Your task to perform on an android device: change notifications settings Image 0: 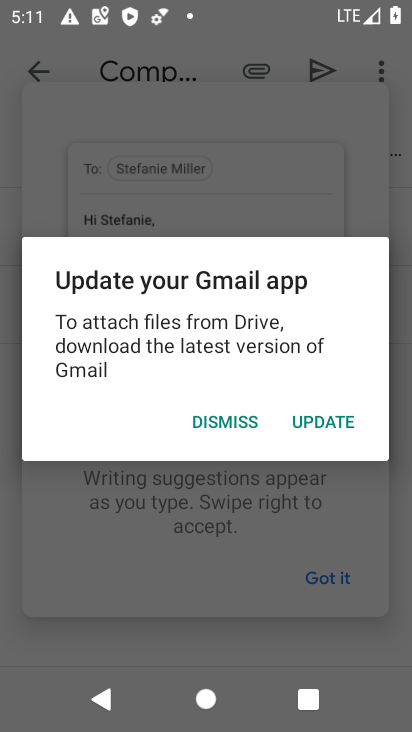
Step 0: press home button
Your task to perform on an android device: change notifications settings Image 1: 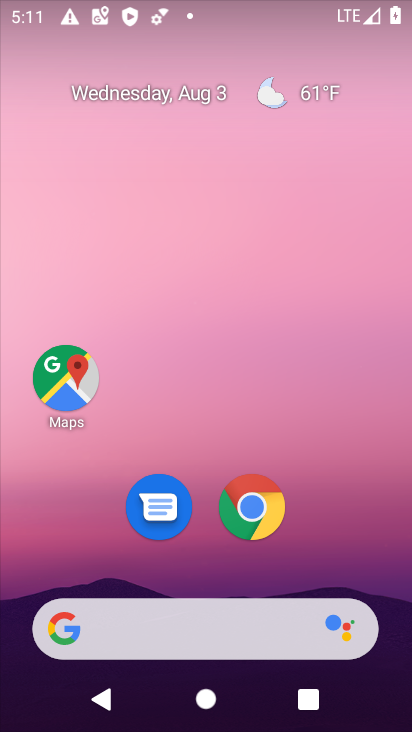
Step 1: drag from (350, 470) to (370, 58)
Your task to perform on an android device: change notifications settings Image 2: 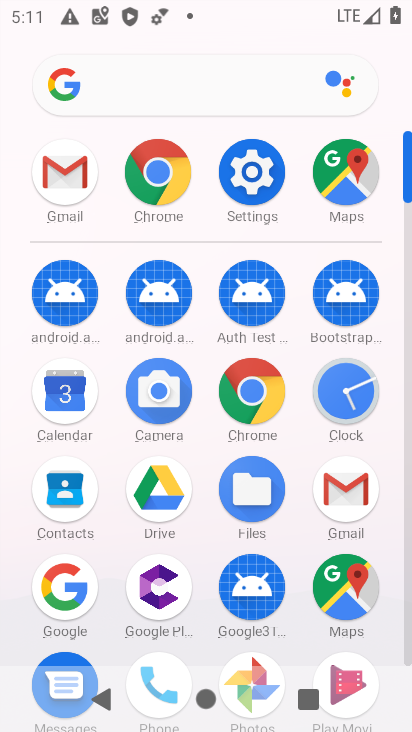
Step 2: drag from (205, 535) to (217, 184)
Your task to perform on an android device: change notifications settings Image 3: 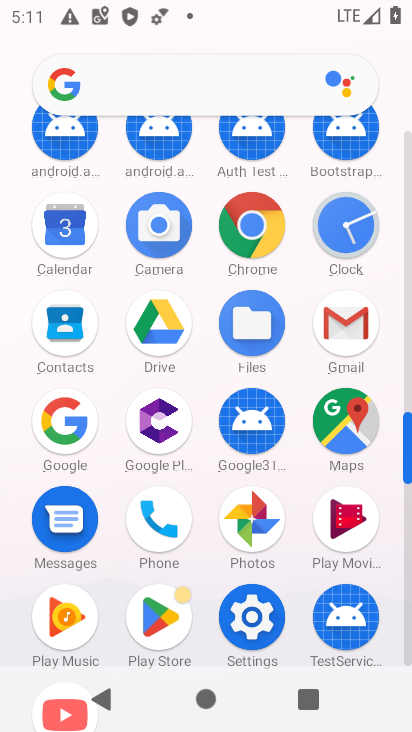
Step 3: click (243, 624)
Your task to perform on an android device: change notifications settings Image 4: 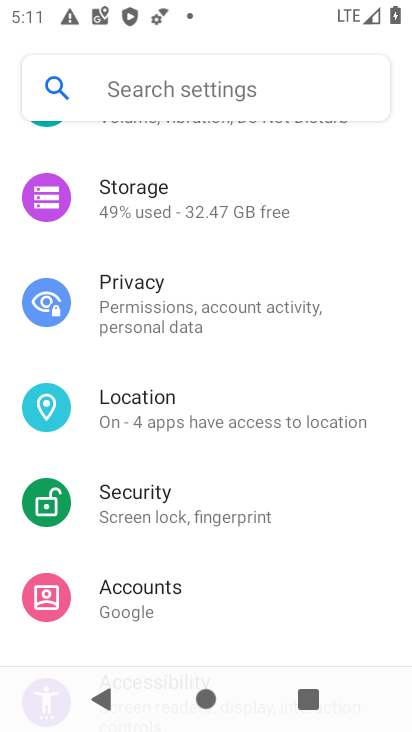
Step 4: drag from (290, 190) to (273, 593)
Your task to perform on an android device: change notifications settings Image 5: 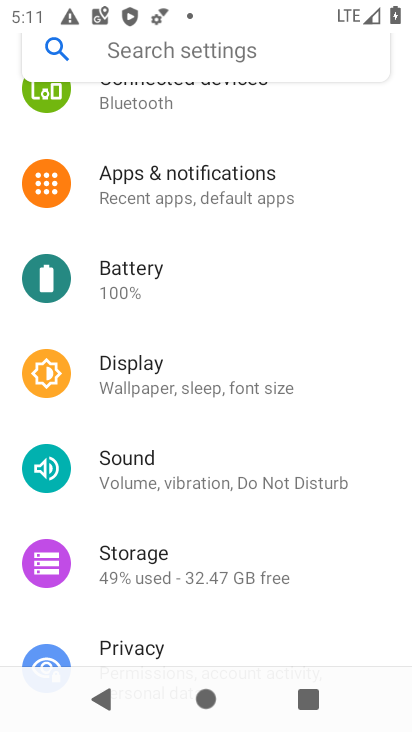
Step 5: drag from (367, 214) to (311, 627)
Your task to perform on an android device: change notifications settings Image 6: 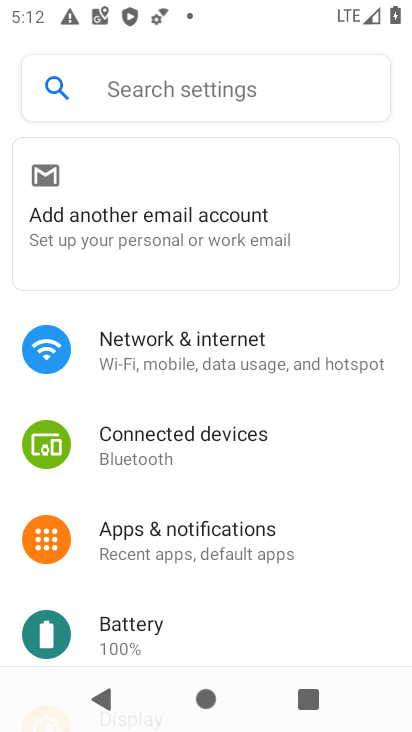
Step 6: drag from (319, 596) to (358, 341)
Your task to perform on an android device: change notifications settings Image 7: 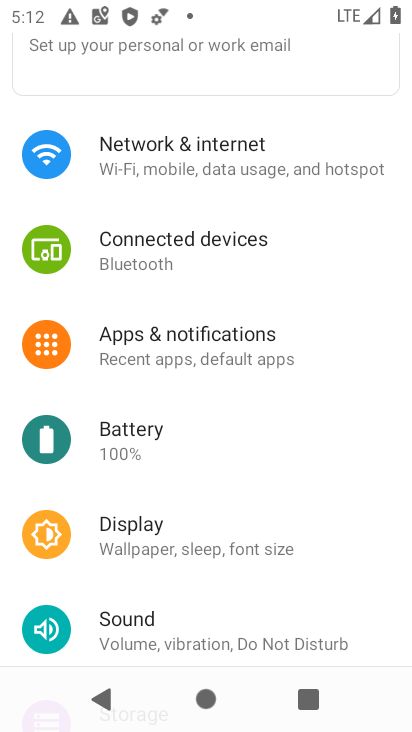
Step 7: click (228, 340)
Your task to perform on an android device: change notifications settings Image 8: 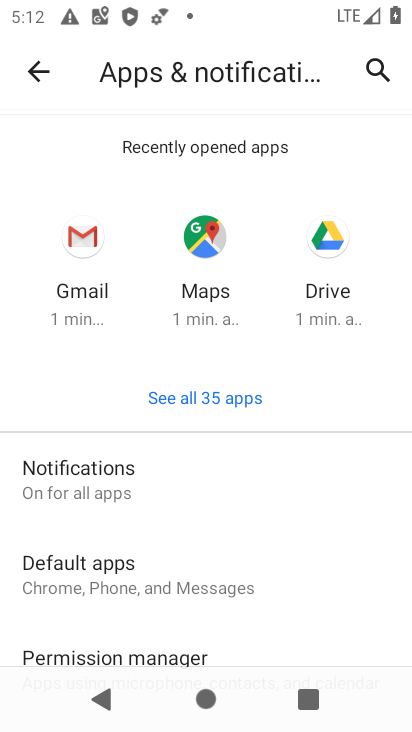
Step 8: click (118, 508)
Your task to perform on an android device: change notifications settings Image 9: 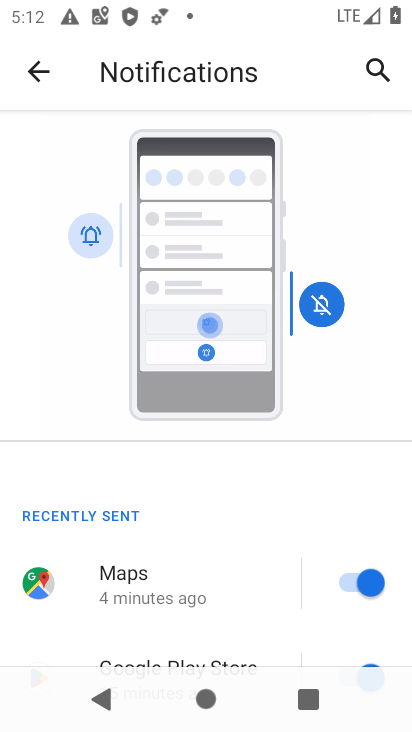
Step 9: task complete